Your task to perform on an android device: What's the weather? Image 0: 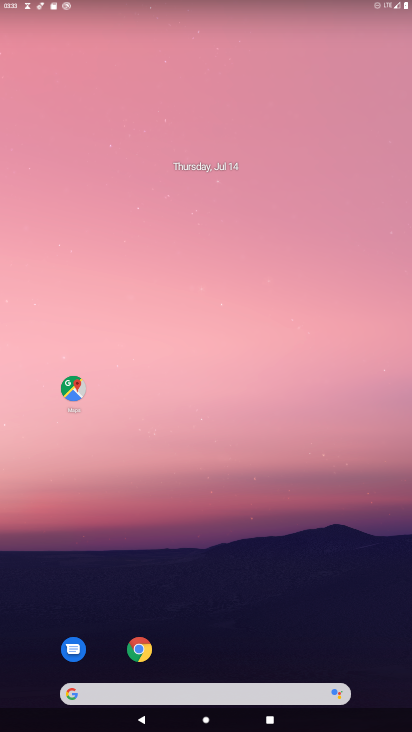
Step 0: drag from (142, 692) to (213, 84)
Your task to perform on an android device: What's the weather? Image 1: 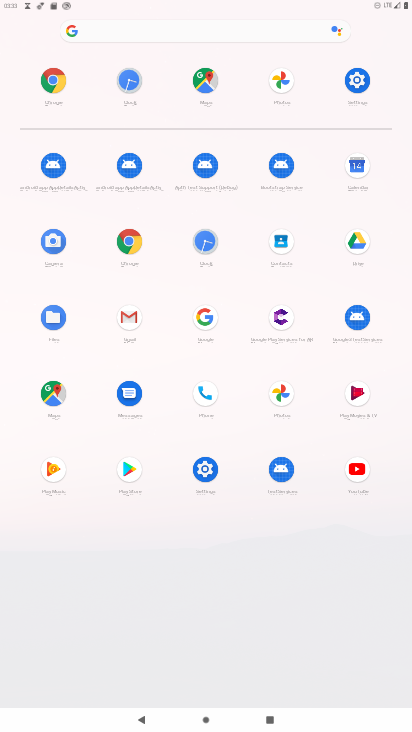
Step 1: click (130, 243)
Your task to perform on an android device: What's the weather? Image 2: 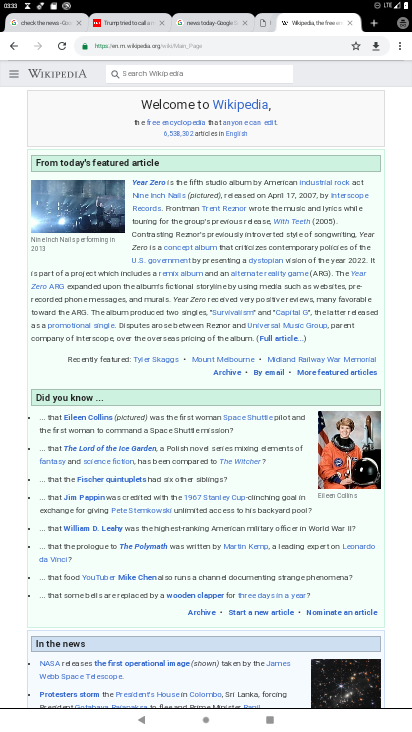
Step 2: press home button
Your task to perform on an android device: What's the weather? Image 3: 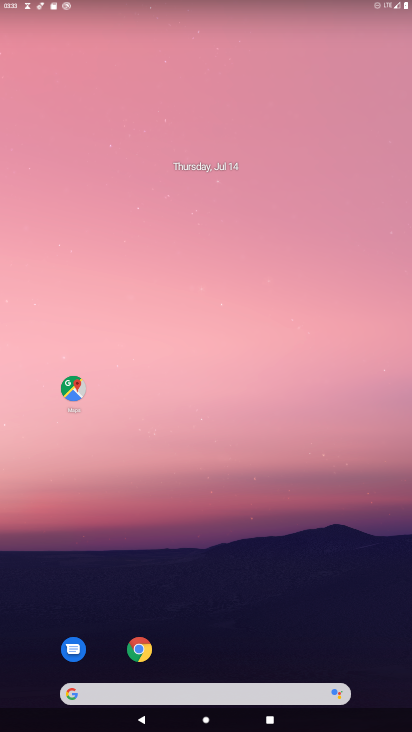
Step 3: drag from (213, 690) to (341, 4)
Your task to perform on an android device: What's the weather? Image 4: 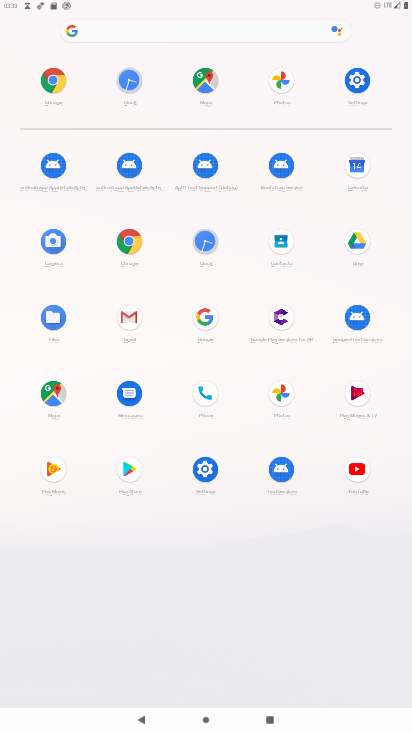
Step 4: click (137, 236)
Your task to perform on an android device: What's the weather? Image 5: 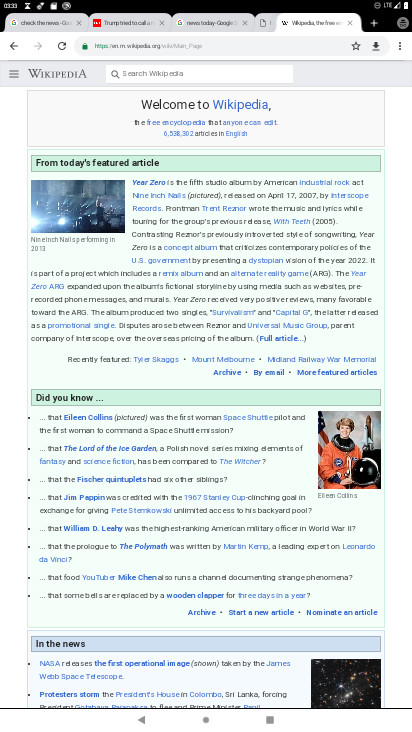
Step 5: click (164, 41)
Your task to perform on an android device: What's the weather? Image 6: 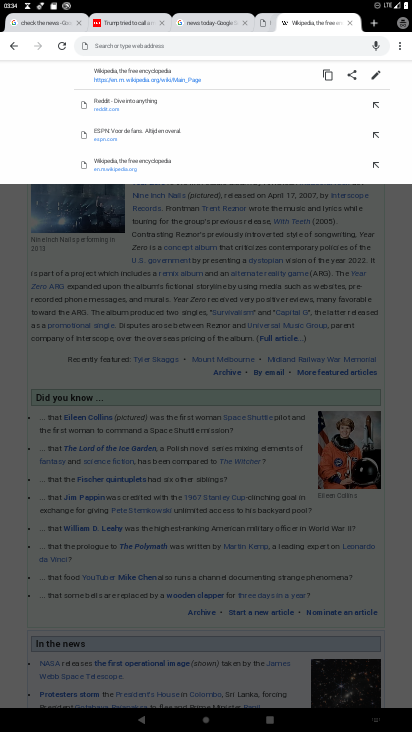
Step 6: type "whats the weather"
Your task to perform on an android device: What's the weather? Image 7: 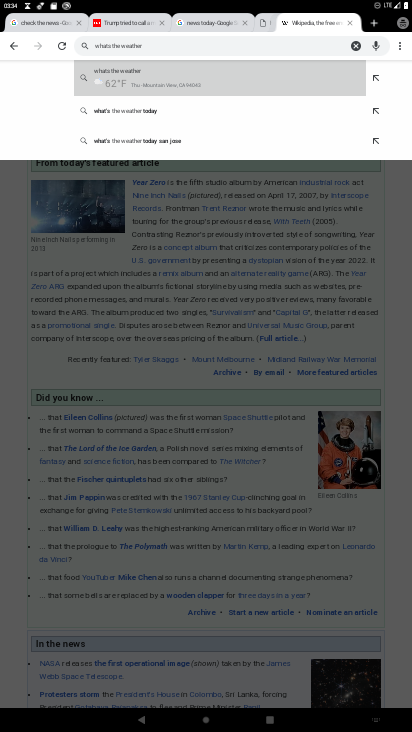
Step 7: click (142, 83)
Your task to perform on an android device: What's the weather? Image 8: 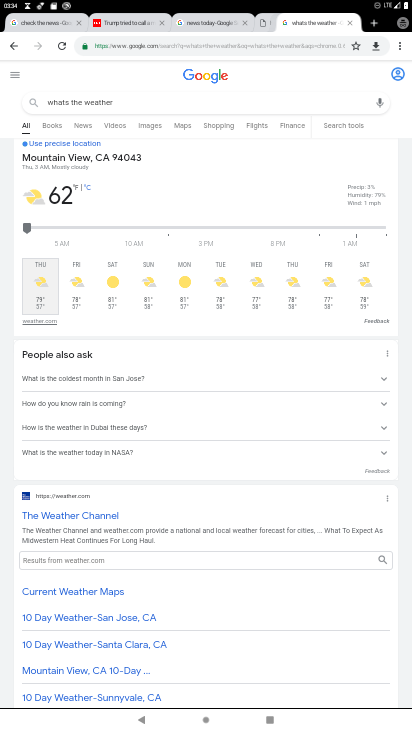
Step 8: task complete